Your task to perform on an android device: Open my contact list Image 0: 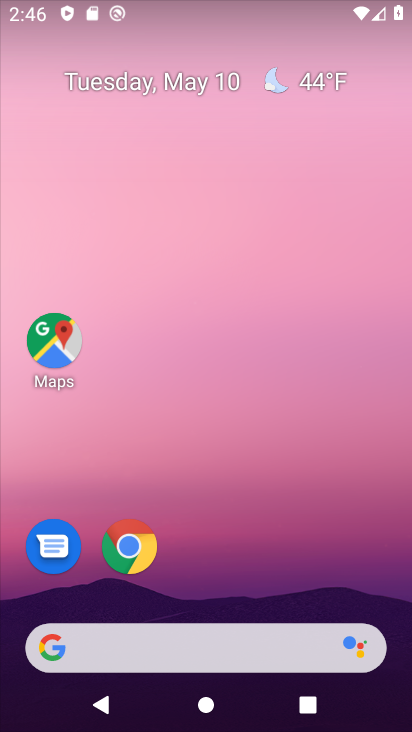
Step 0: drag from (296, 632) to (410, 124)
Your task to perform on an android device: Open my contact list Image 1: 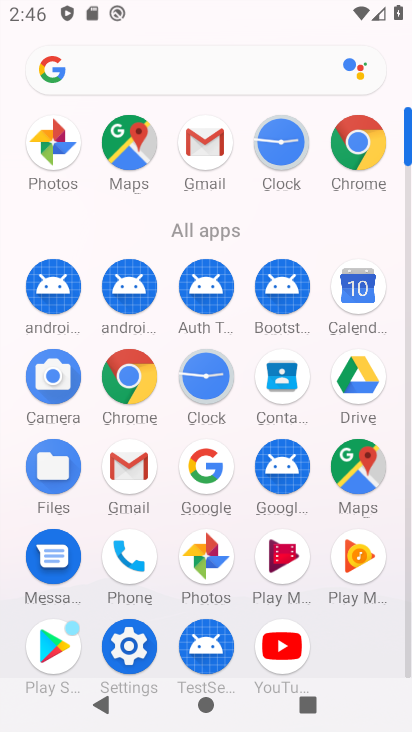
Step 1: click (286, 381)
Your task to perform on an android device: Open my contact list Image 2: 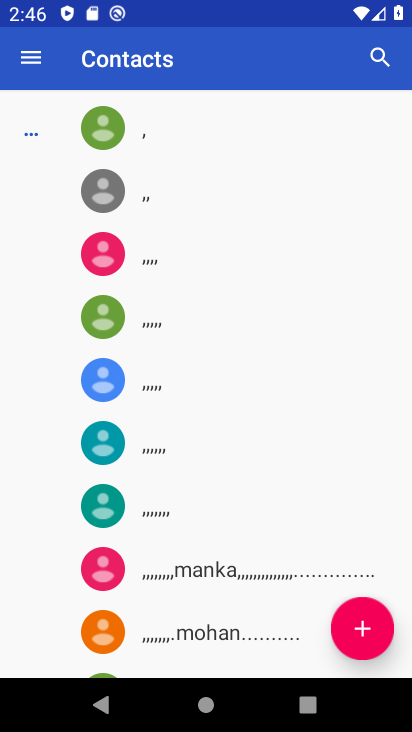
Step 2: task complete